Your task to perform on an android device: allow notifications from all sites in the chrome app Image 0: 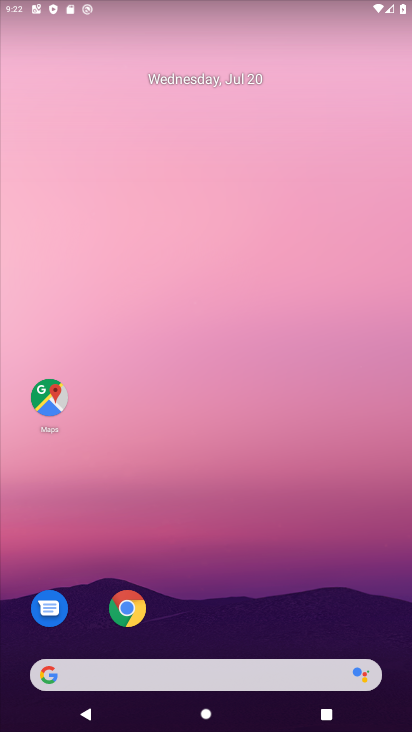
Step 0: click (135, 612)
Your task to perform on an android device: allow notifications from all sites in the chrome app Image 1: 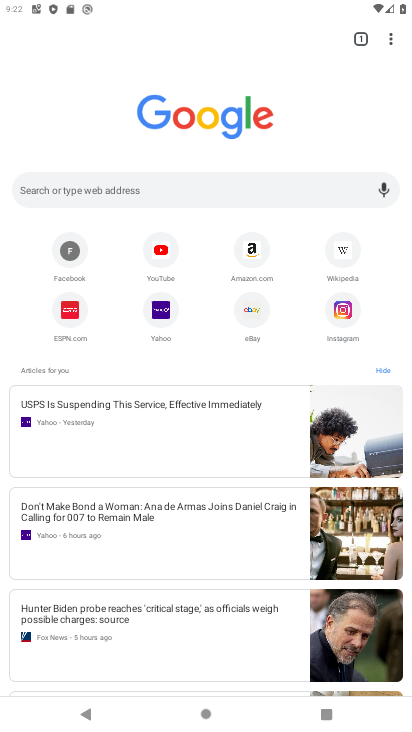
Step 1: click (392, 40)
Your task to perform on an android device: allow notifications from all sites in the chrome app Image 2: 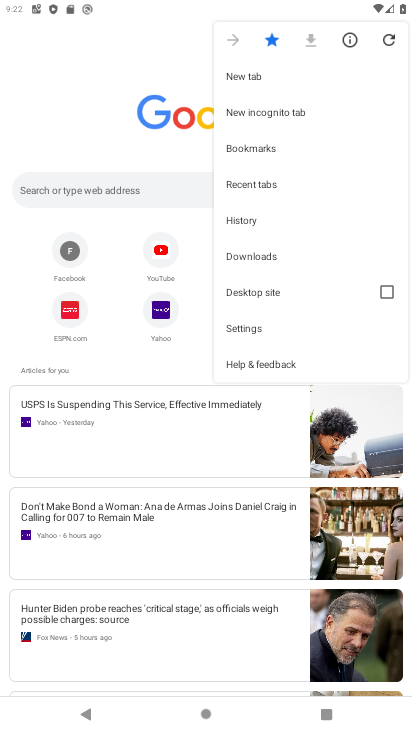
Step 2: click (263, 331)
Your task to perform on an android device: allow notifications from all sites in the chrome app Image 3: 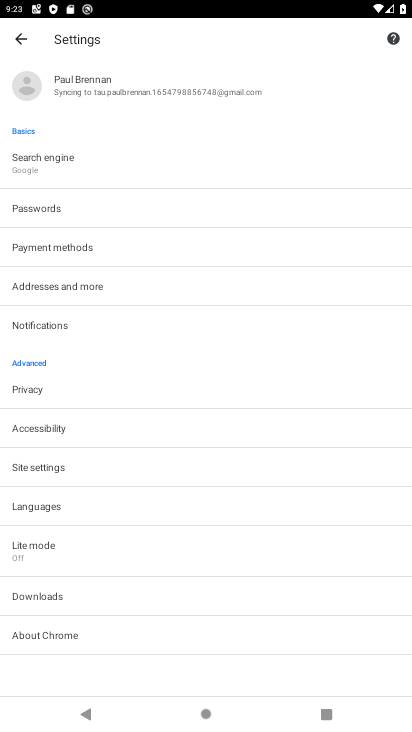
Step 3: click (56, 329)
Your task to perform on an android device: allow notifications from all sites in the chrome app Image 4: 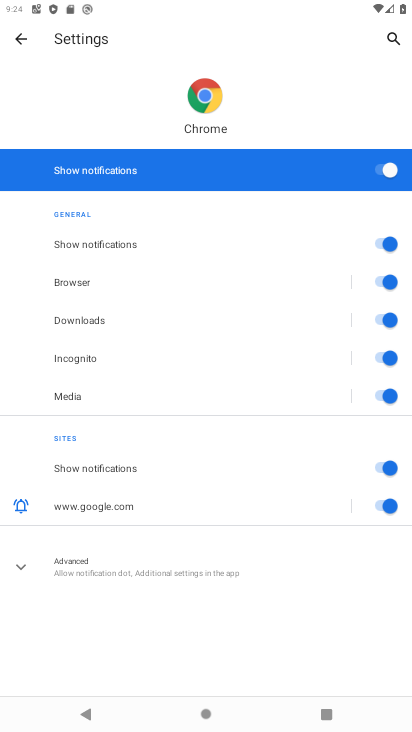
Step 4: task complete